Your task to perform on an android device: Open Reddit.com Image 0: 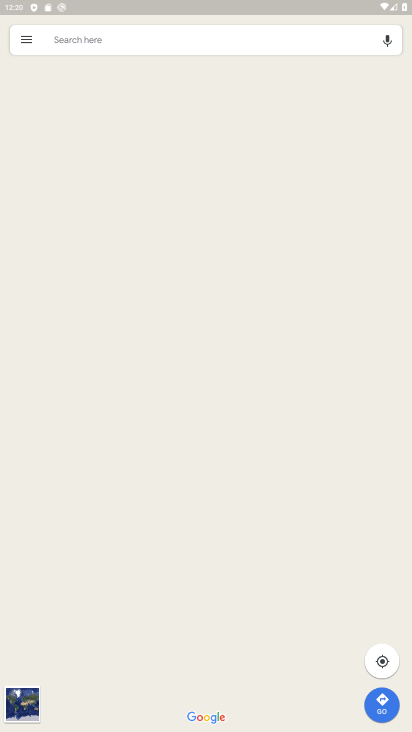
Step 0: press home button
Your task to perform on an android device: Open Reddit.com Image 1: 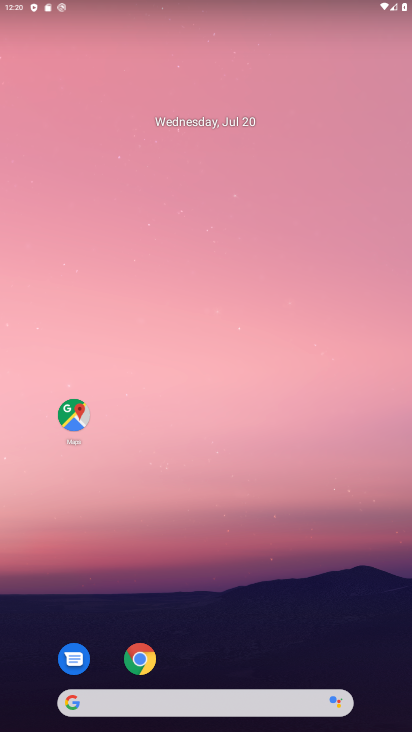
Step 1: drag from (382, 626) to (193, 28)
Your task to perform on an android device: Open Reddit.com Image 2: 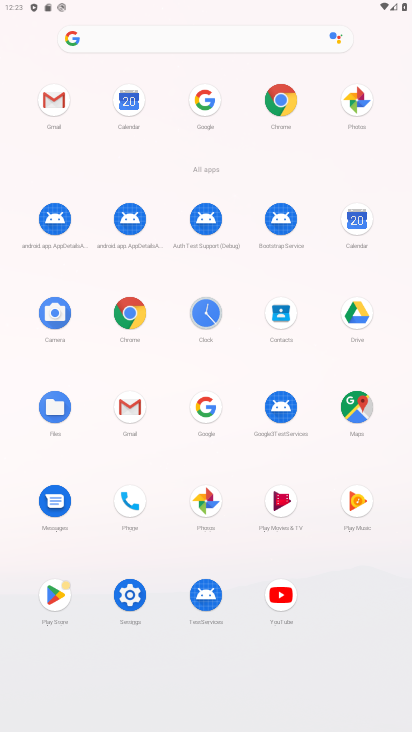
Step 2: click (207, 408)
Your task to perform on an android device: Open Reddit.com Image 3: 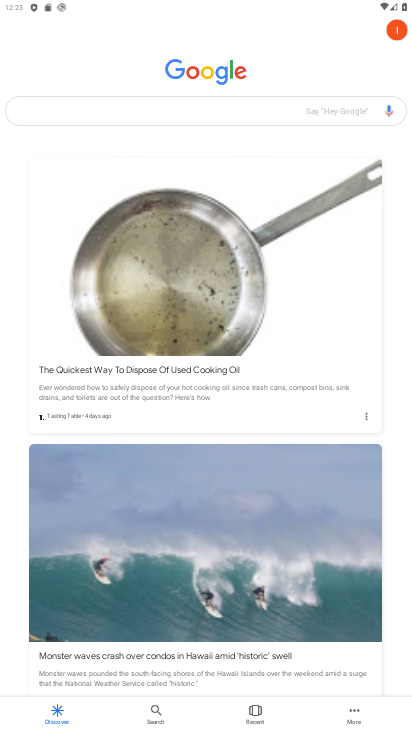
Step 3: click (170, 104)
Your task to perform on an android device: Open Reddit.com Image 4: 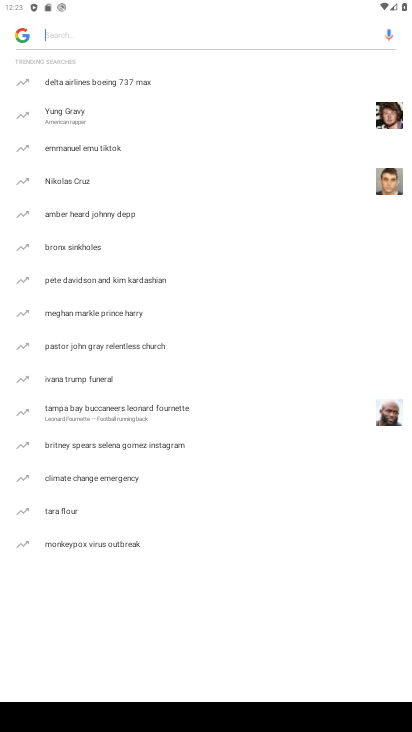
Step 4: type "Reddit.com"
Your task to perform on an android device: Open Reddit.com Image 5: 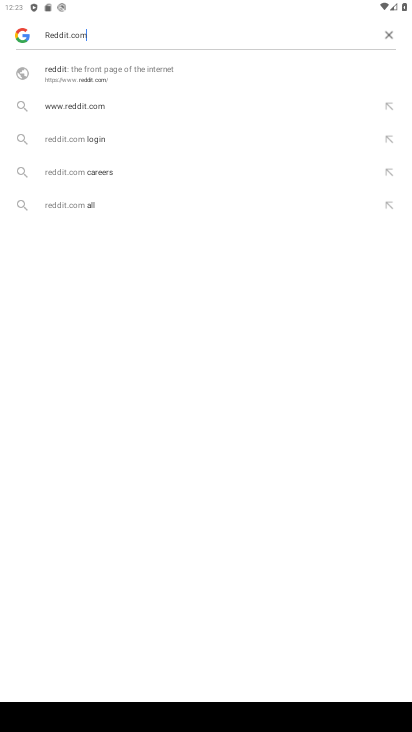
Step 5: click (81, 76)
Your task to perform on an android device: Open Reddit.com Image 6: 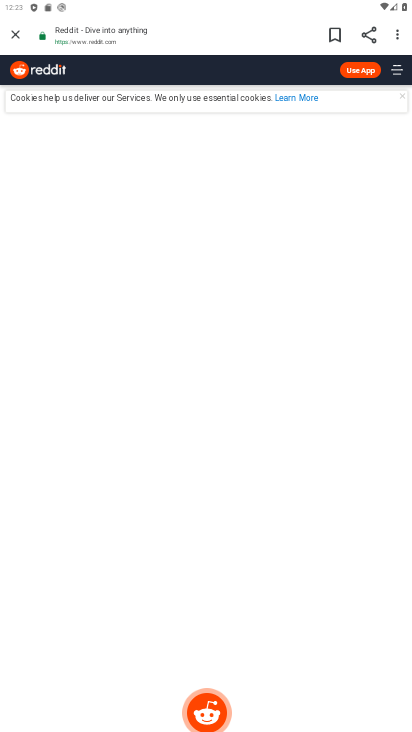
Step 6: task complete